Your task to perform on an android device: Look up "custom art" on Etsy Image 0: 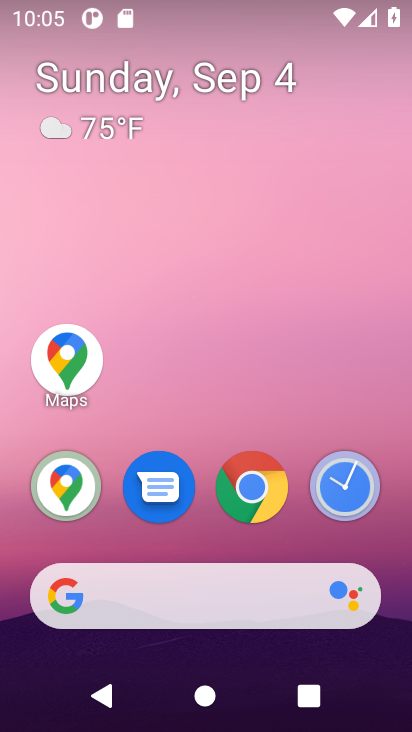
Step 0: click (271, 490)
Your task to perform on an android device: Look up "custom art" on Etsy Image 1: 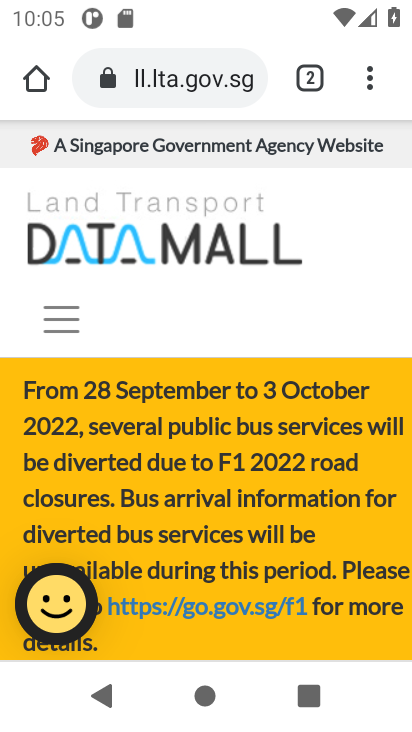
Step 1: task complete